Your task to perform on an android device: Go to battery settings Image 0: 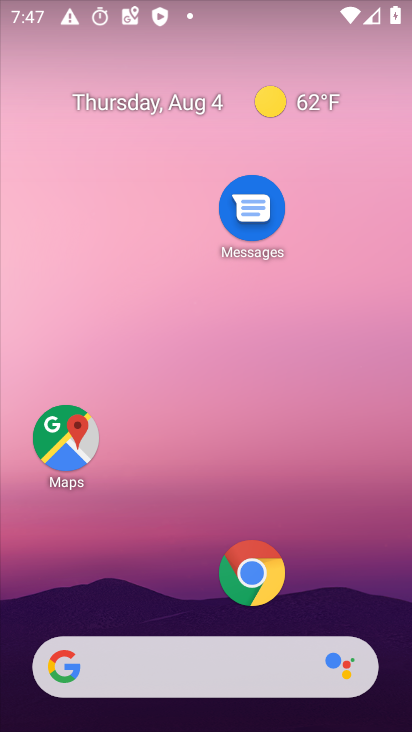
Step 0: press home button
Your task to perform on an android device: Go to battery settings Image 1: 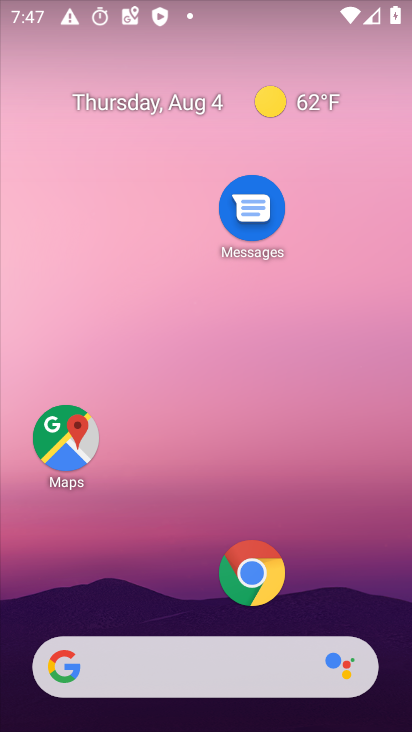
Step 1: drag from (171, 589) to (214, 0)
Your task to perform on an android device: Go to battery settings Image 2: 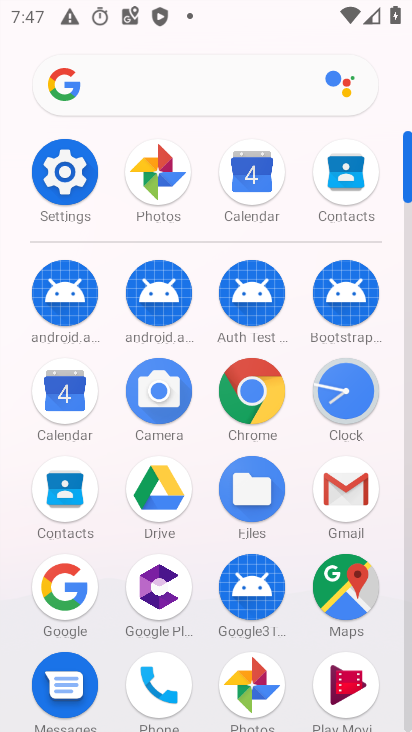
Step 2: click (75, 172)
Your task to perform on an android device: Go to battery settings Image 3: 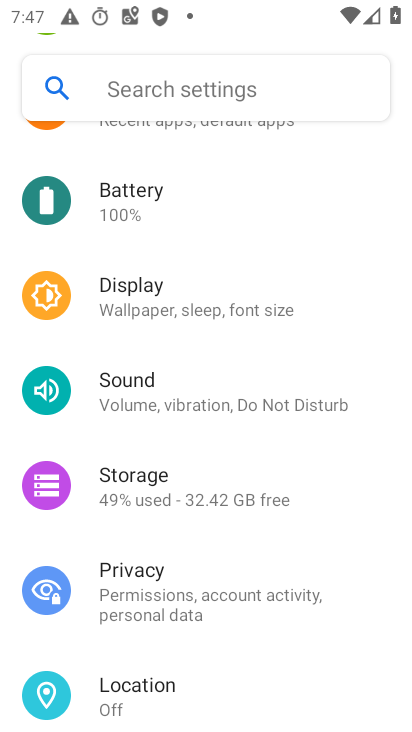
Step 3: click (114, 214)
Your task to perform on an android device: Go to battery settings Image 4: 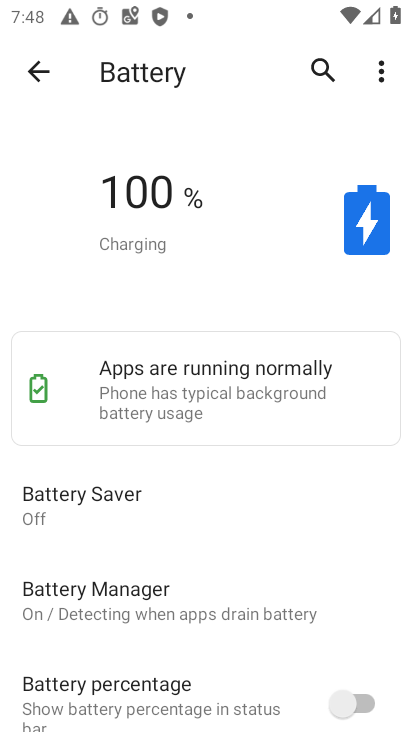
Step 4: task complete